Your task to perform on an android device: Find coffee shops on Maps Image 0: 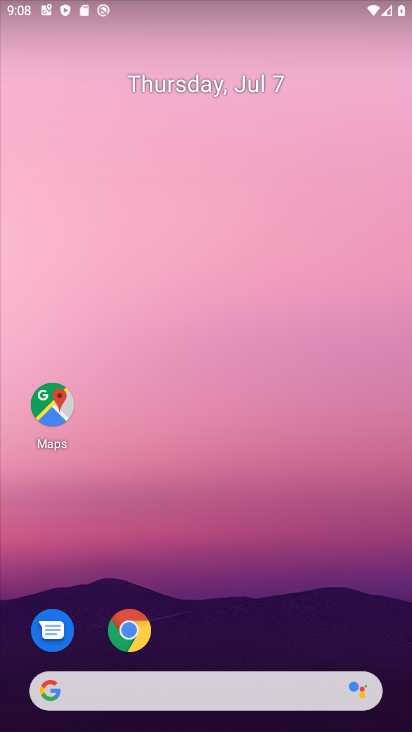
Step 0: drag from (310, 543) to (351, 36)
Your task to perform on an android device: Find coffee shops on Maps Image 1: 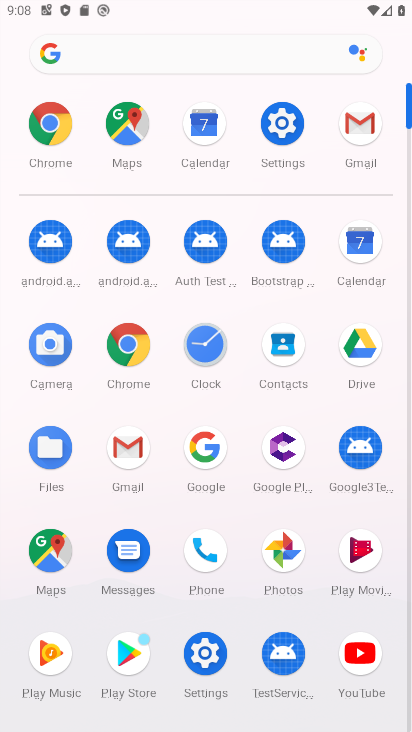
Step 1: click (131, 122)
Your task to perform on an android device: Find coffee shops on Maps Image 2: 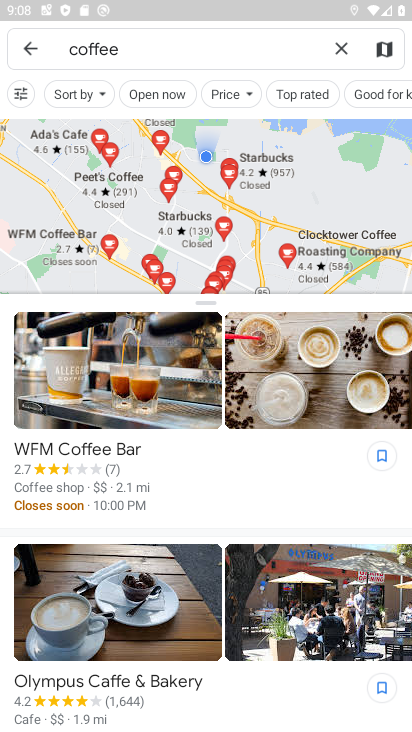
Step 2: task complete